Your task to perform on an android device: Open the calendar and show me this week's events? Image 0: 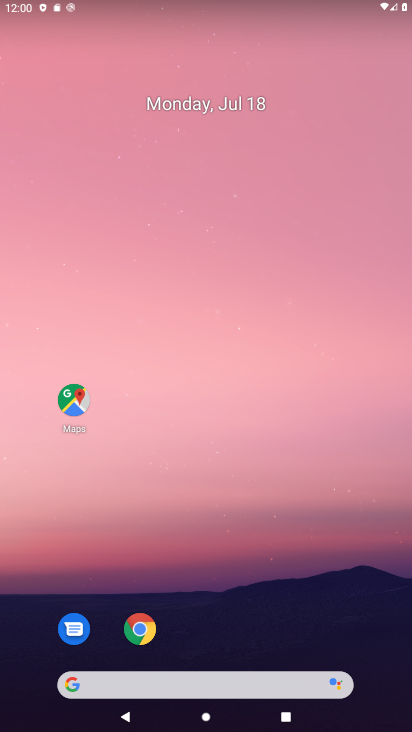
Step 0: drag from (294, 686) to (268, 369)
Your task to perform on an android device: Open the calendar and show me this week's events? Image 1: 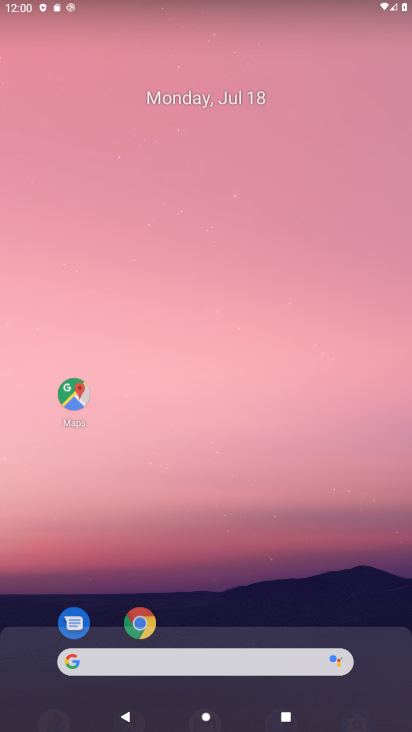
Step 1: drag from (255, 572) to (298, 124)
Your task to perform on an android device: Open the calendar and show me this week's events? Image 2: 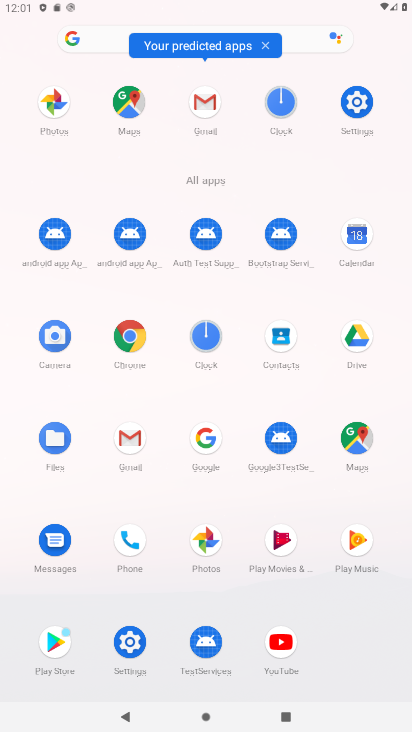
Step 2: click (348, 240)
Your task to perform on an android device: Open the calendar and show me this week's events? Image 3: 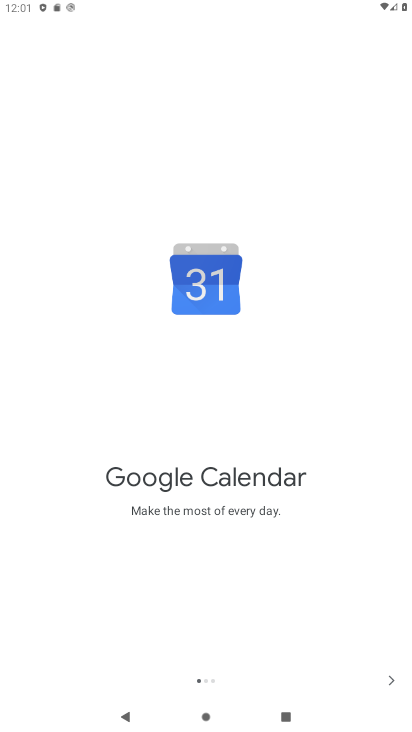
Step 3: click (389, 681)
Your task to perform on an android device: Open the calendar and show me this week's events? Image 4: 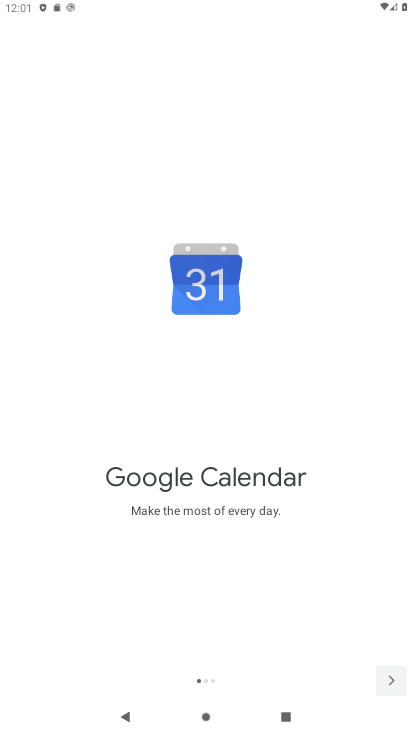
Step 4: click (387, 681)
Your task to perform on an android device: Open the calendar and show me this week's events? Image 5: 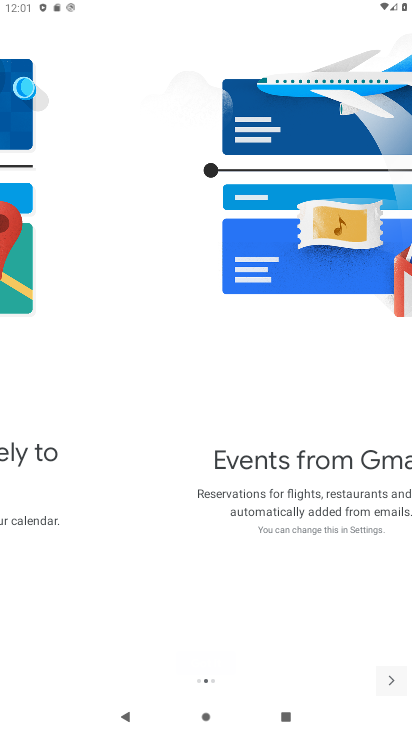
Step 5: click (191, 675)
Your task to perform on an android device: Open the calendar and show me this week's events? Image 6: 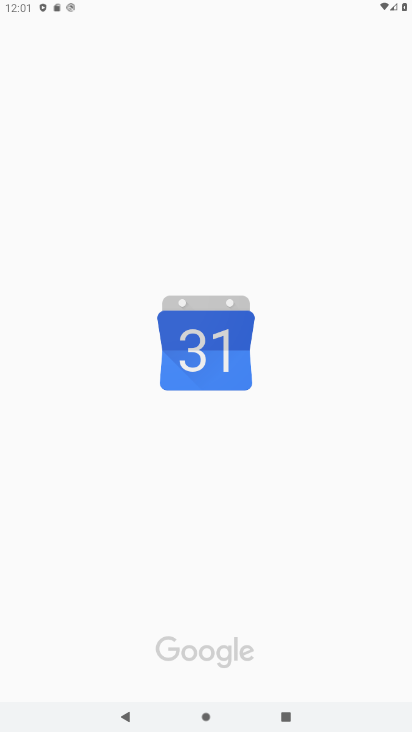
Step 6: click (191, 675)
Your task to perform on an android device: Open the calendar and show me this week's events? Image 7: 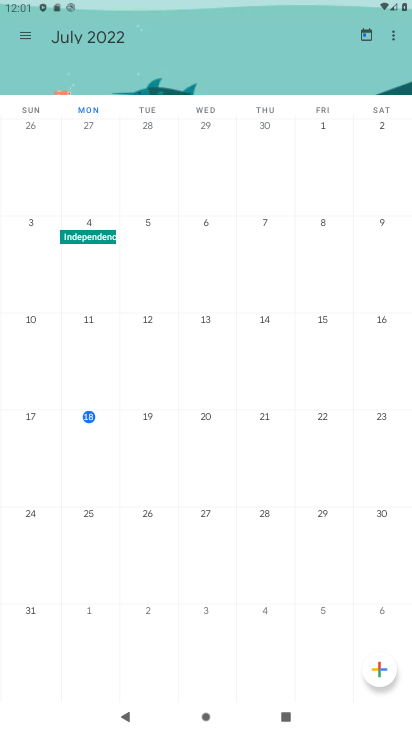
Step 7: click (97, 511)
Your task to perform on an android device: Open the calendar and show me this week's events? Image 8: 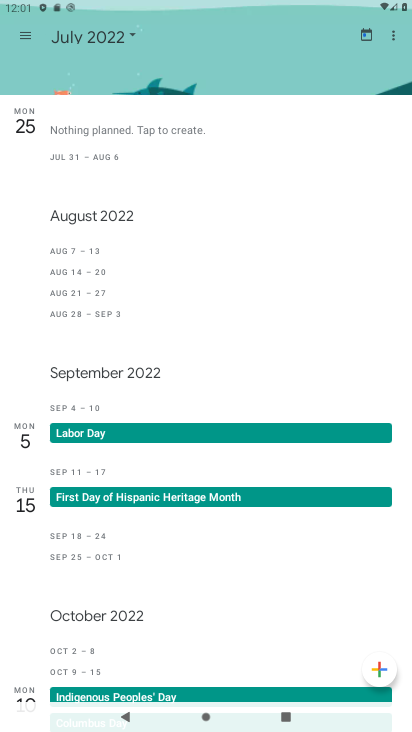
Step 8: press back button
Your task to perform on an android device: Open the calendar and show me this week's events? Image 9: 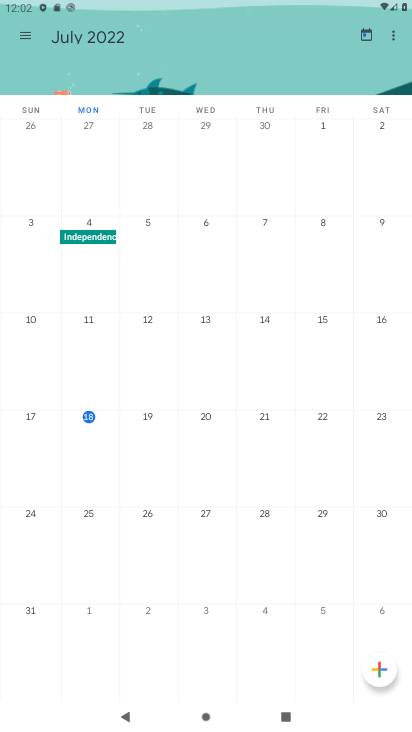
Step 9: click (86, 536)
Your task to perform on an android device: Open the calendar and show me this week's events? Image 10: 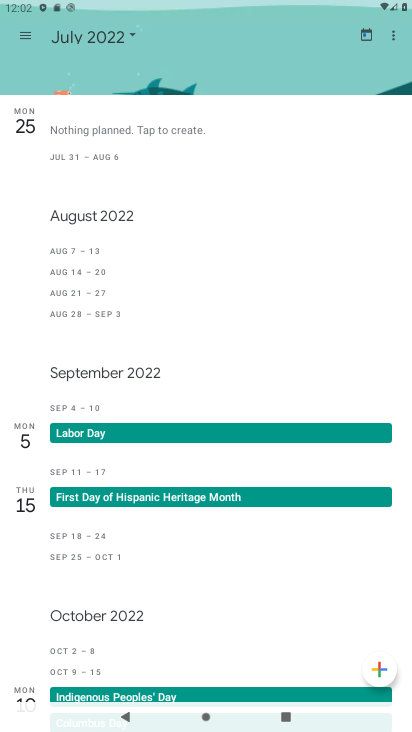
Step 10: task complete